Your task to perform on an android device: turn off airplane mode Image 0: 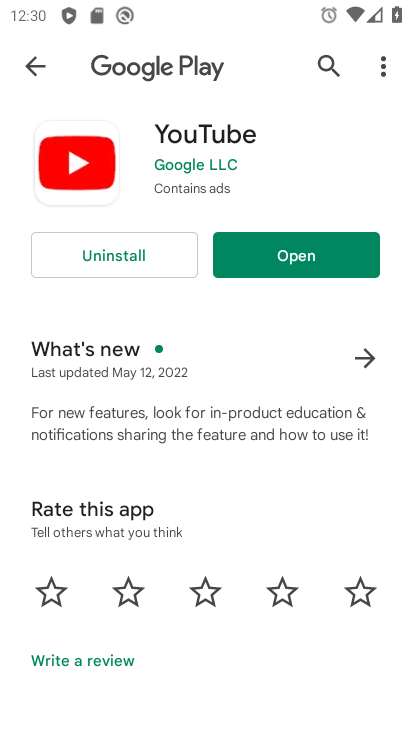
Step 0: press home button
Your task to perform on an android device: turn off airplane mode Image 1: 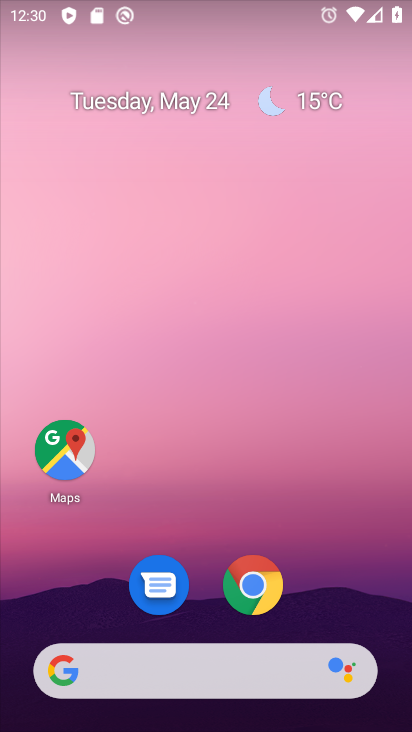
Step 1: drag from (254, 465) to (278, 28)
Your task to perform on an android device: turn off airplane mode Image 2: 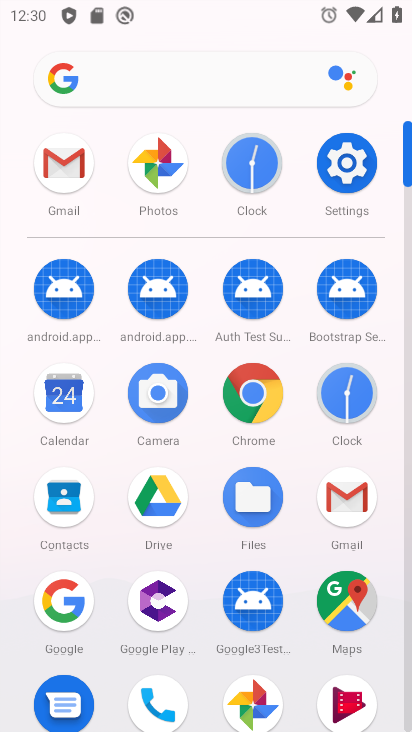
Step 2: click (323, 160)
Your task to perform on an android device: turn off airplane mode Image 3: 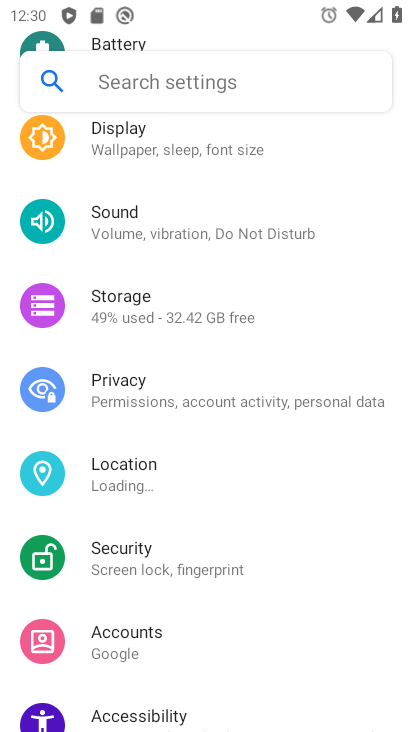
Step 3: drag from (209, 287) to (245, 605)
Your task to perform on an android device: turn off airplane mode Image 4: 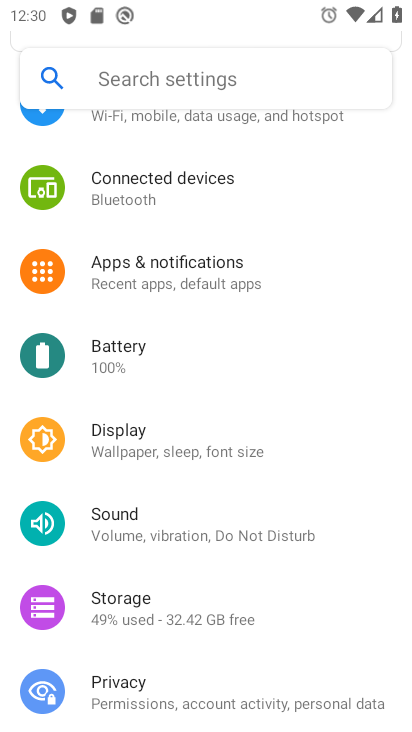
Step 4: drag from (239, 308) to (213, 550)
Your task to perform on an android device: turn off airplane mode Image 5: 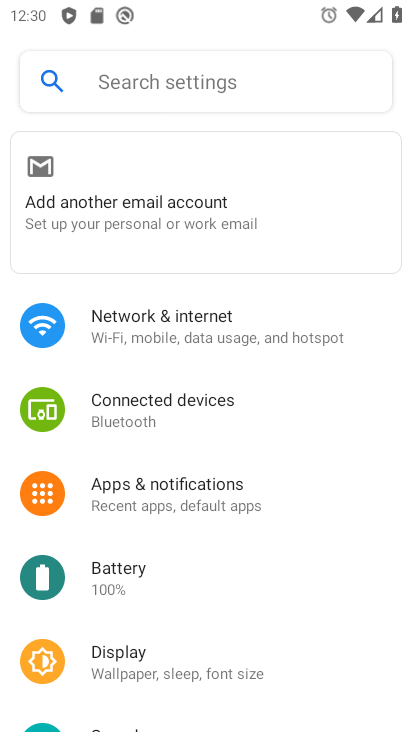
Step 5: click (238, 319)
Your task to perform on an android device: turn off airplane mode Image 6: 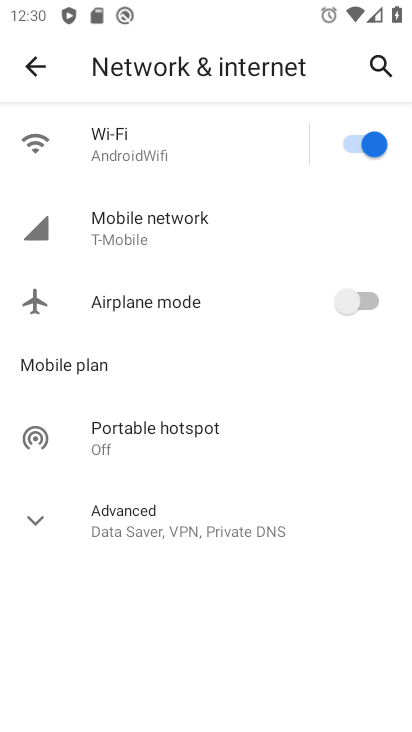
Step 6: task complete